Your task to perform on an android device: Open calendar and show me the third week of next month Image 0: 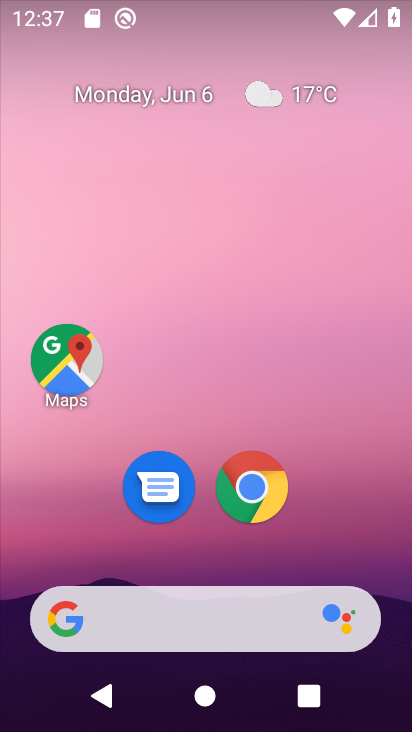
Step 0: drag from (327, 368) to (231, 47)
Your task to perform on an android device: Open calendar and show me the third week of next month Image 1: 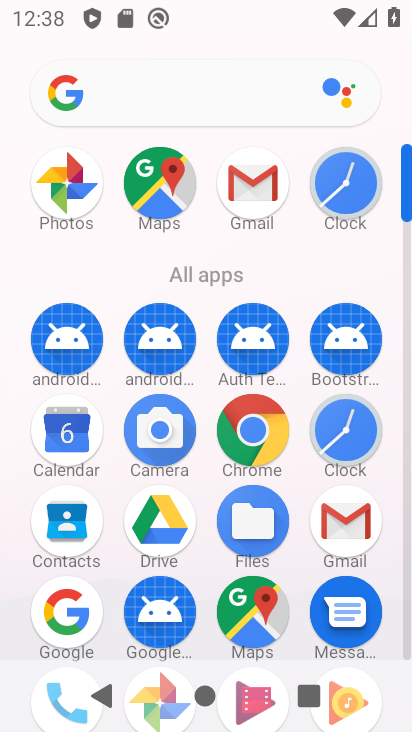
Step 1: drag from (299, 310) to (292, 129)
Your task to perform on an android device: Open calendar and show me the third week of next month Image 2: 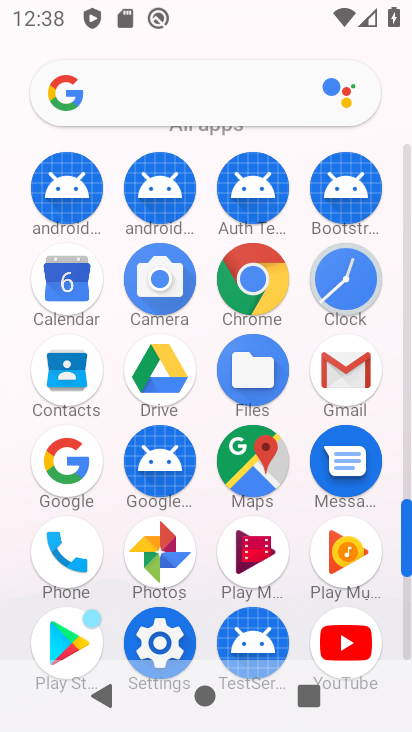
Step 2: click (65, 283)
Your task to perform on an android device: Open calendar and show me the third week of next month Image 3: 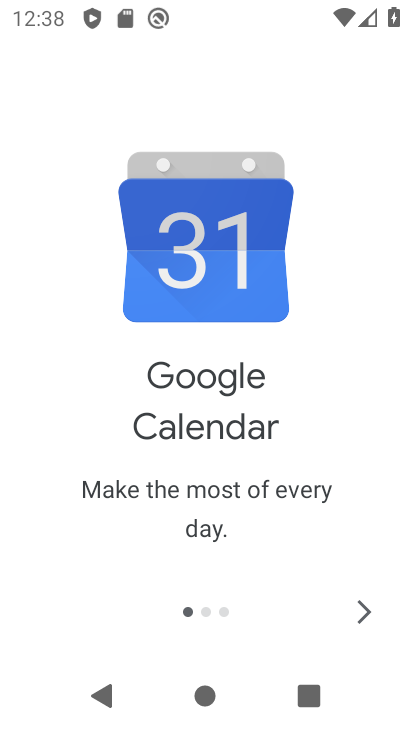
Step 3: click (367, 610)
Your task to perform on an android device: Open calendar and show me the third week of next month Image 4: 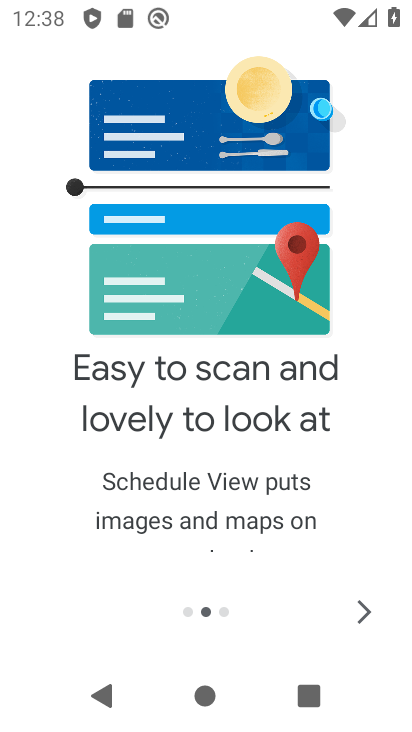
Step 4: click (367, 610)
Your task to perform on an android device: Open calendar and show me the third week of next month Image 5: 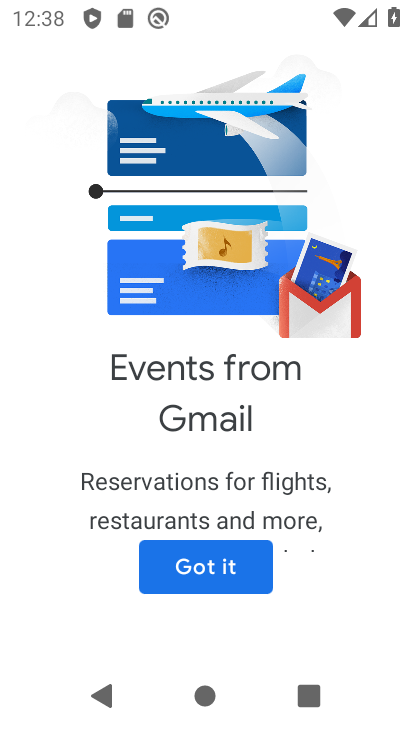
Step 5: click (233, 575)
Your task to perform on an android device: Open calendar and show me the third week of next month Image 6: 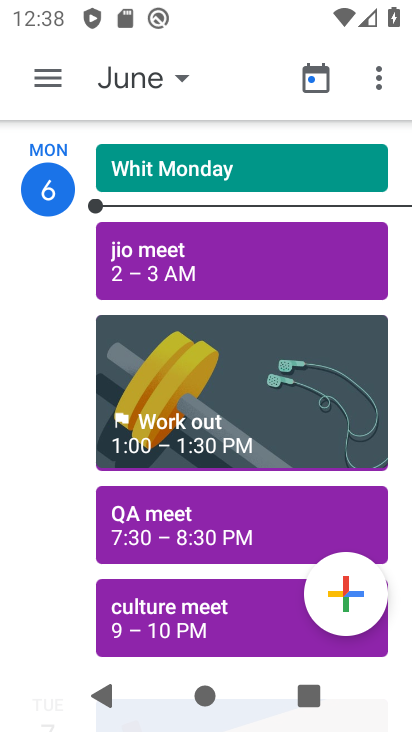
Step 6: click (187, 78)
Your task to perform on an android device: Open calendar and show me the third week of next month Image 7: 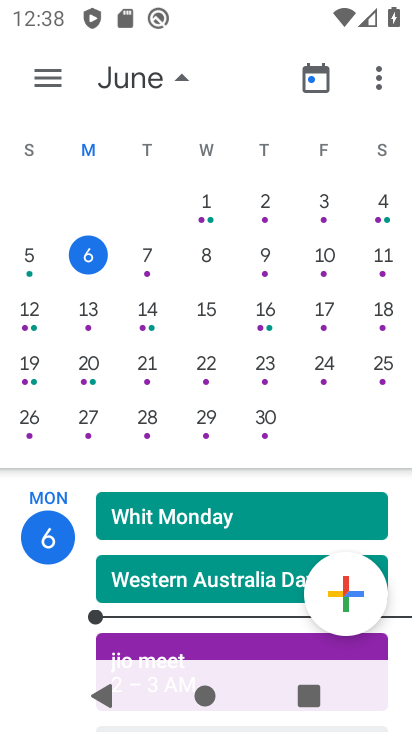
Step 7: drag from (353, 342) to (12, 339)
Your task to perform on an android device: Open calendar and show me the third week of next month Image 8: 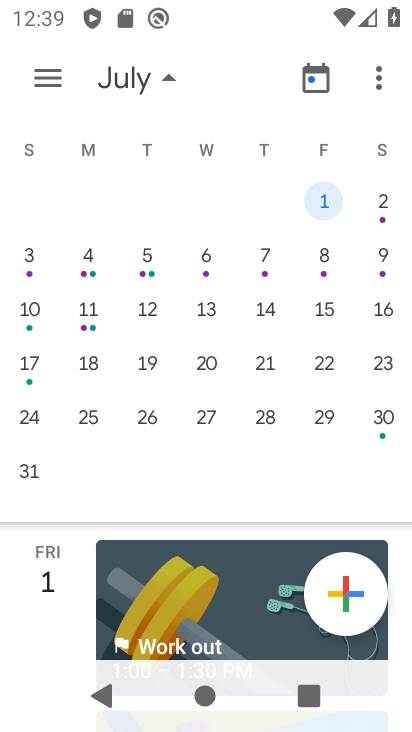
Step 8: click (88, 368)
Your task to perform on an android device: Open calendar and show me the third week of next month Image 9: 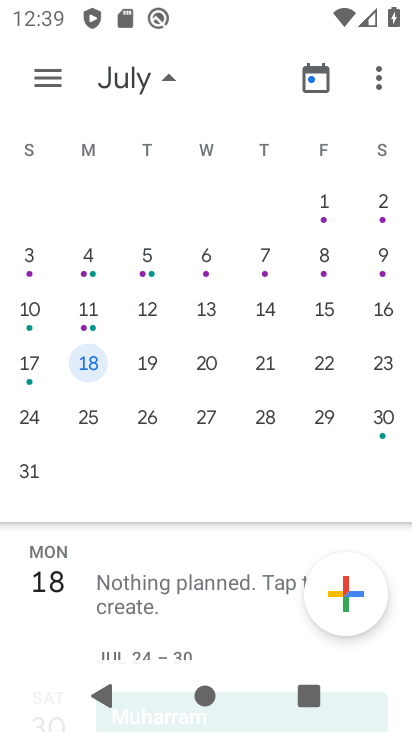
Step 9: click (45, 73)
Your task to perform on an android device: Open calendar and show me the third week of next month Image 10: 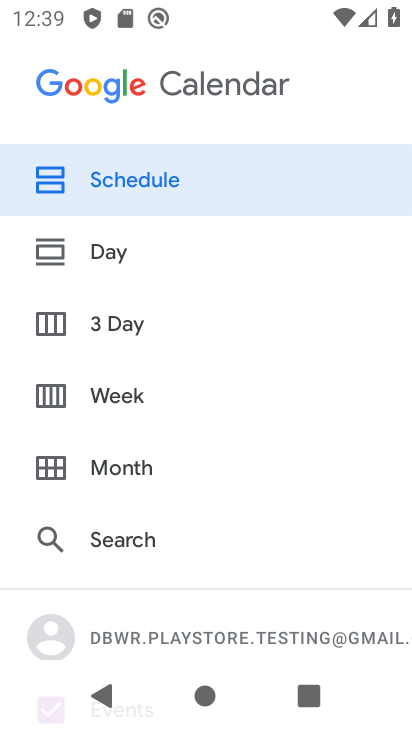
Step 10: click (115, 386)
Your task to perform on an android device: Open calendar and show me the third week of next month Image 11: 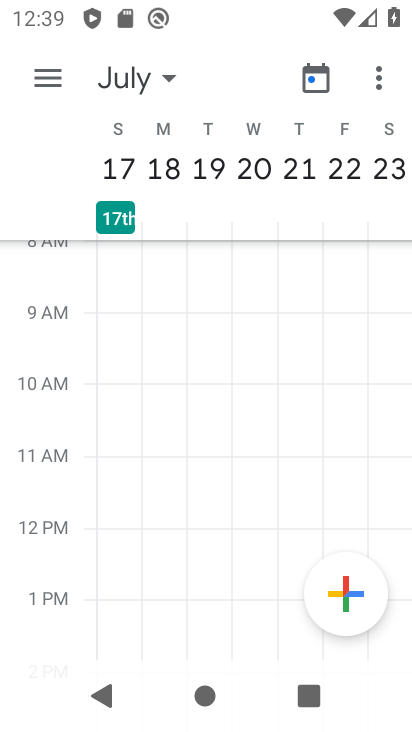
Step 11: task complete